Your task to perform on an android device: Open calendar and show me the third week of next month Image 0: 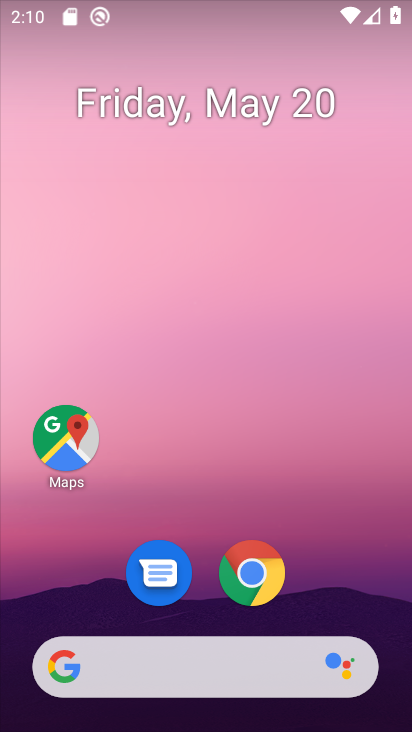
Step 0: drag from (195, 616) to (170, 151)
Your task to perform on an android device: Open calendar and show me the third week of next month Image 1: 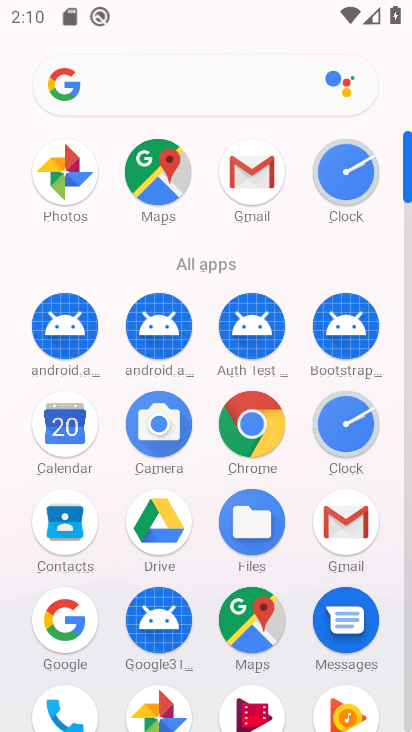
Step 1: click (73, 404)
Your task to perform on an android device: Open calendar and show me the third week of next month Image 2: 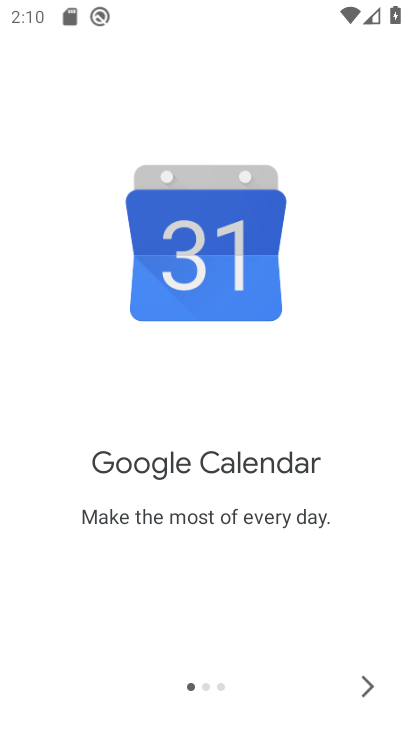
Step 2: click (366, 684)
Your task to perform on an android device: Open calendar and show me the third week of next month Image 3: 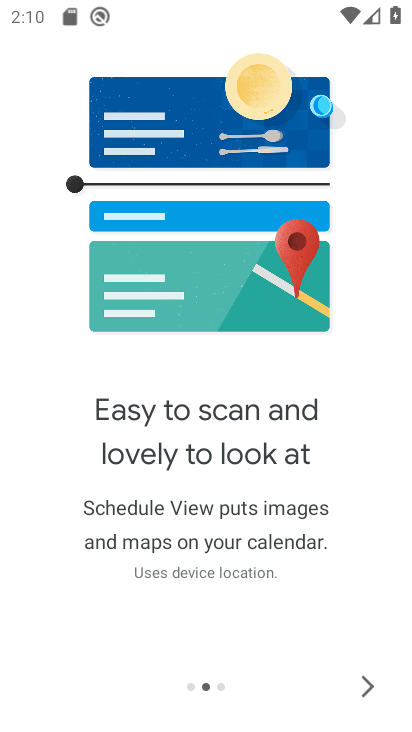
Step 3: click (366, 684)
Your task to perform on an android device: Open calendar and show me the third week of next month Image 4: 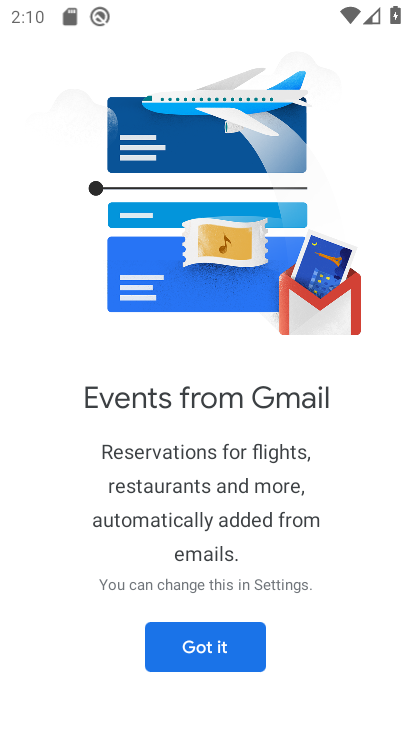
Step 4: click (366, 684)
Your task to perform on an android device: Open calendar and show me the third week of next month Image 5: 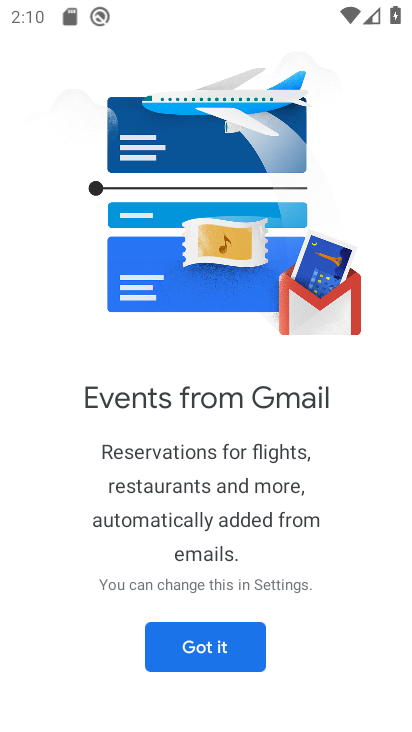
Step 5: click (261, 654)
Your task to perform on an android device: Open calendar and show me the third week of next month Image 6: 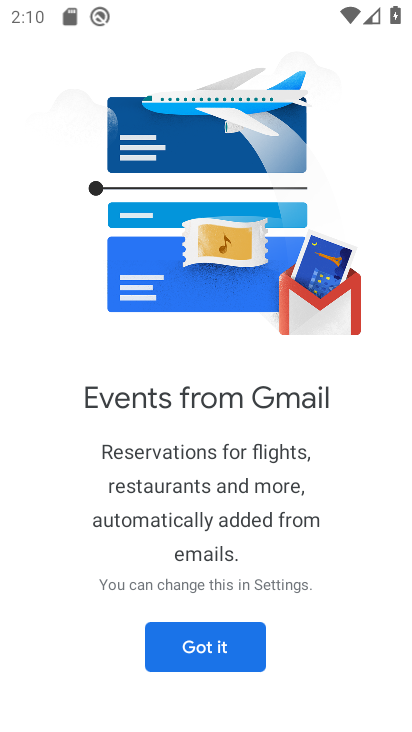
Step 6: click (226, 649)
Your task to perform on an android device: Open calendar and show me the third week of next month Image 7: 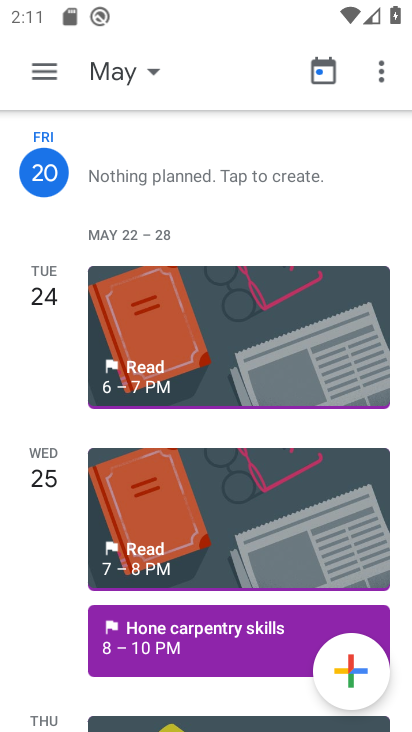
Step 7: click (132, 73)
Your task to perform on an android device: Open calendar and show me the third week of next month Image 8: 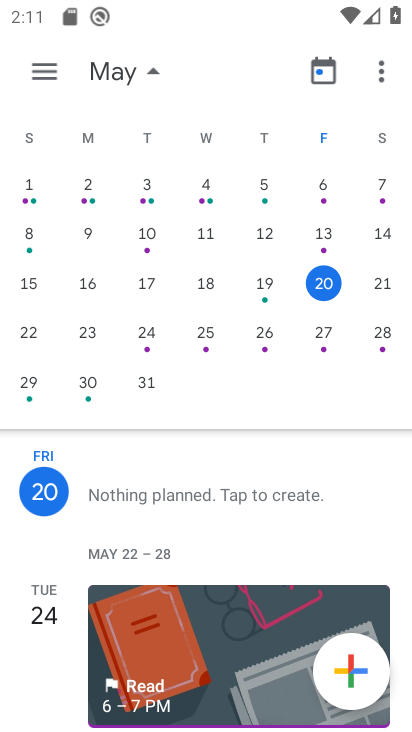
Step 8: drag from (352, 256) to (36, 246)
Your task to perform on an android device: Open calendar and show me the third week of next month Image 9: 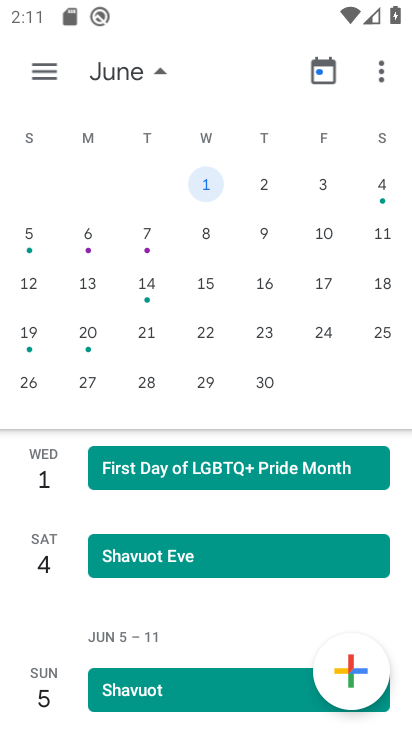
Step 9: click (35, 273)
Your task to perform on an android device: Open calendar and show me the third week of next month Image 10: 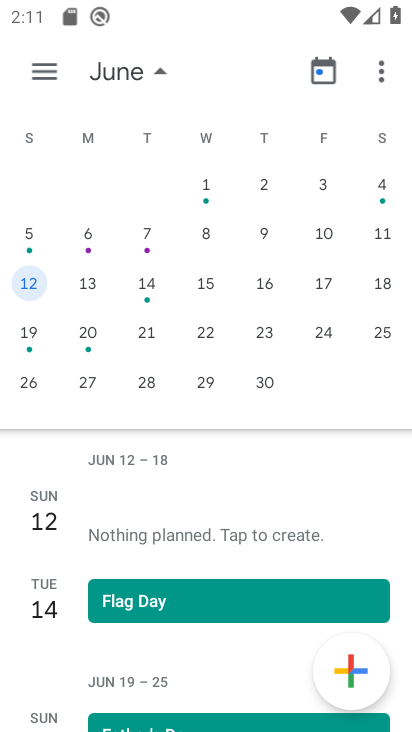
Step 10: task complete